Your task to perform on an android device: What's the weather? Image 0: 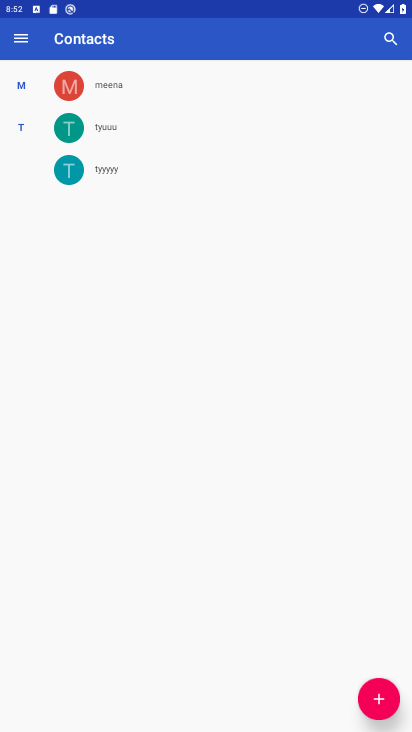
Step 0: press home button
Your task to perform on an android device: What's the weather? Image 1: 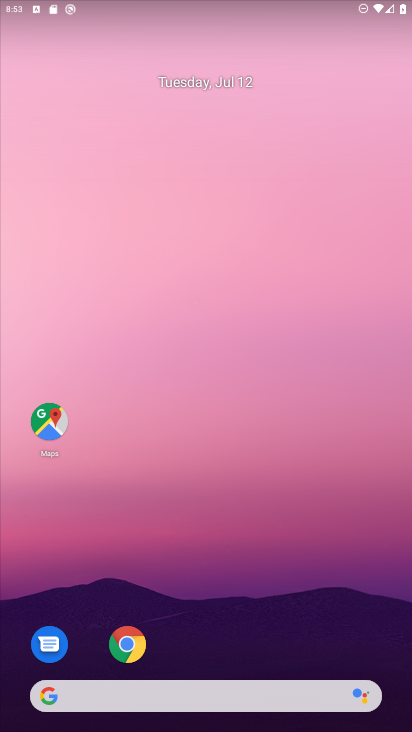
Step 1: click (176, 692)
Your task to perform on an android device: What's the weather? Image 2: 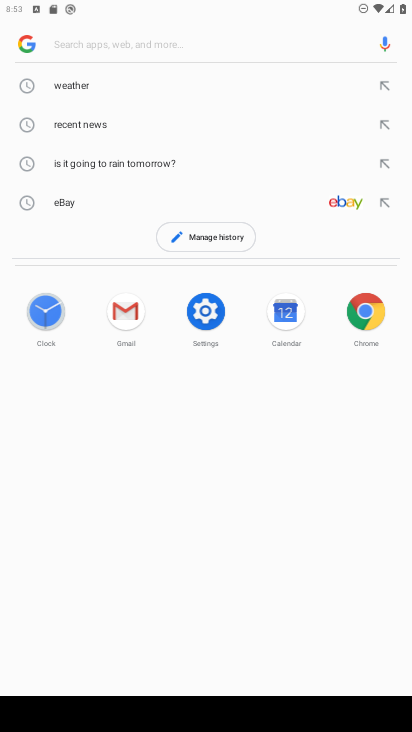
Step 2: click (79, 80)
Your task to perform on an android device: What's the weather? Image 3: 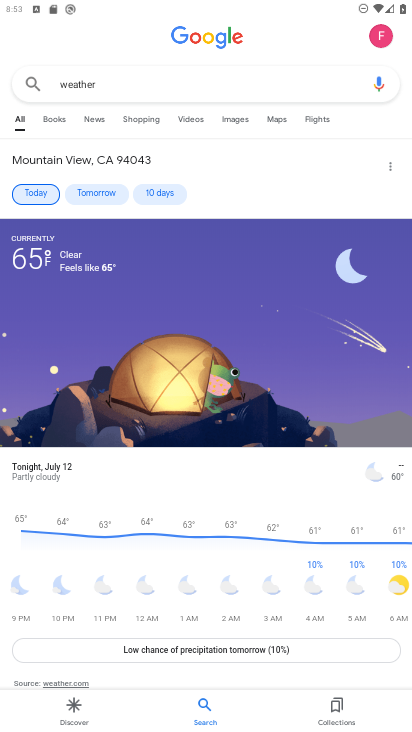
Step 3: task complete